Your task to perform on an android device: toggle translation in the chrome app Image 0: 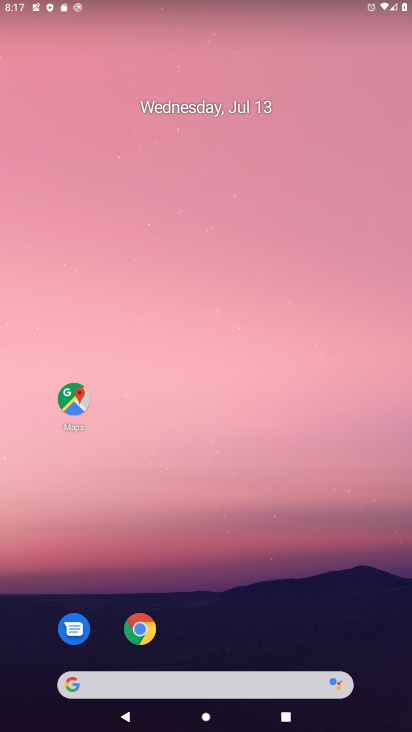
Step 0: drag from (264, 599) to (205, 4)
Your task to perform on an android device: toggle translation in the chrome app Image 1: 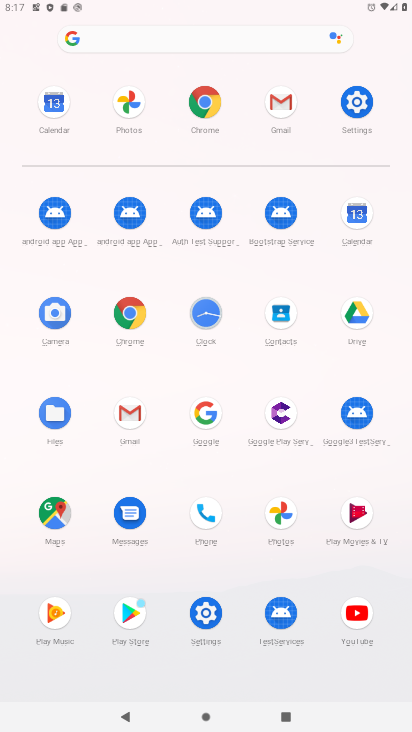
Step 1: click (202, 103)
Your task to perform on an android device: toggle translation in the chrome app Image 2: 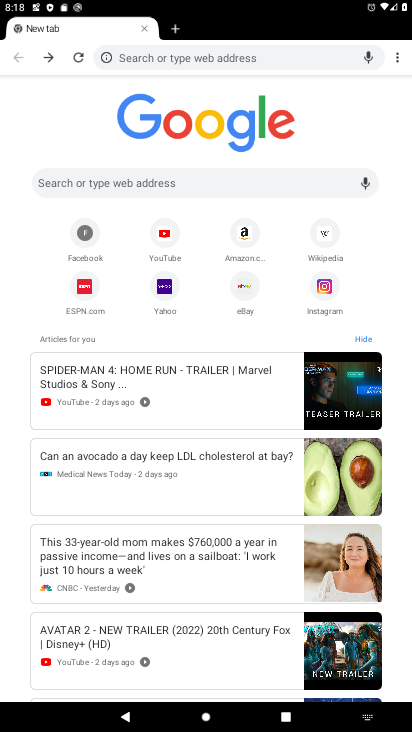
Step 2: drag from (393, 60) to (265, 267)
Your task to perform on an android device: toggle translation in the chrome app Image 3: 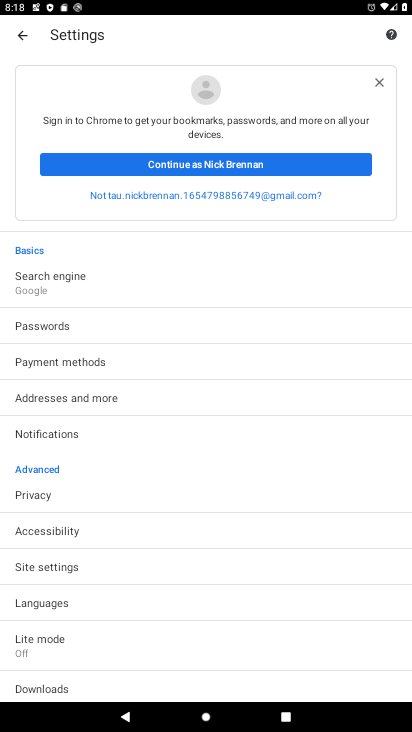
Step 3: click (67, 604)
Your task to perform on an android device: toggle translation in the chrome app Image 4: 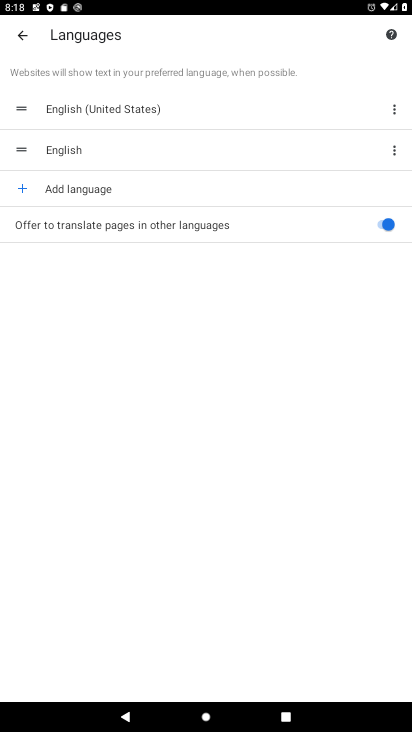
Step 4: click (383, 228)
Your task to perform on an android device: toggle translation in the chrome app Image 5: 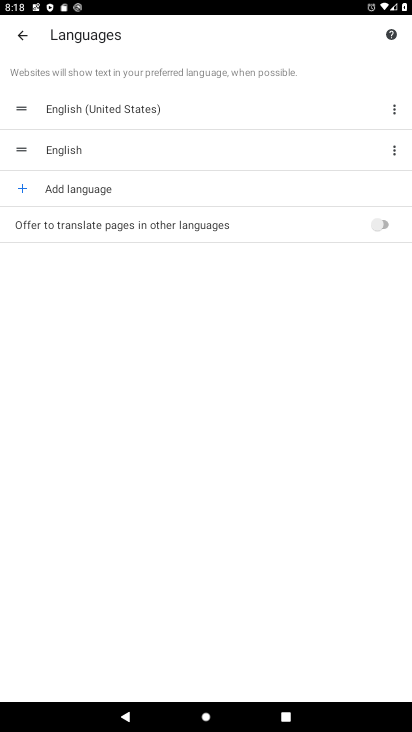
Step 5: task complete